Your task to perform on an android device: delete a single message in the gmail app Image 0: 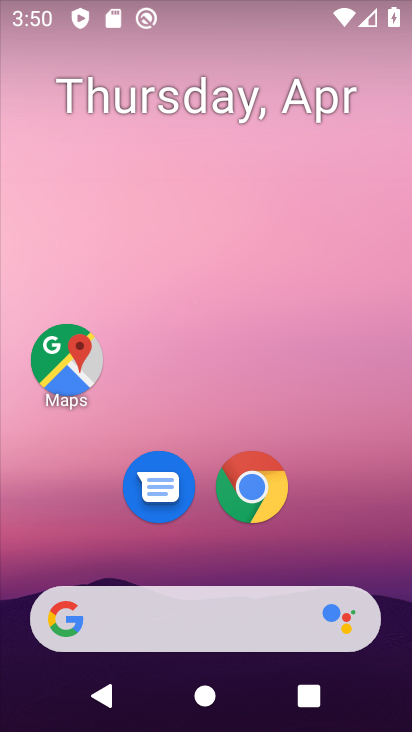
Step 0: drag from (213, 546) to (242, 177)
Your task to perform on an android device: delete a single message in the gmail app Image 1: 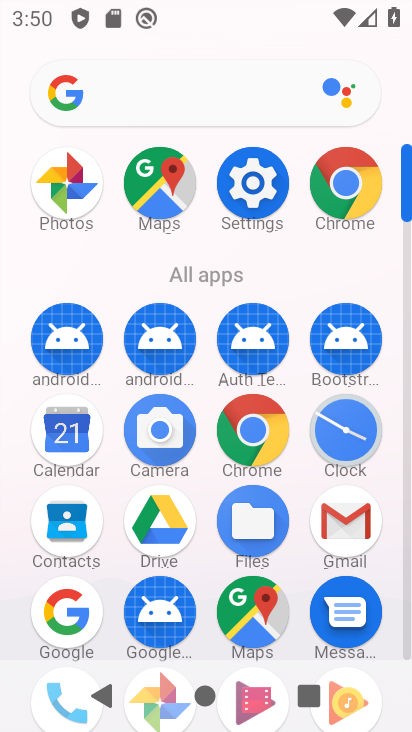
Step 1: click (344, 542)
Your task to perform on an android device: delete a single message in the gmail app Image 2: 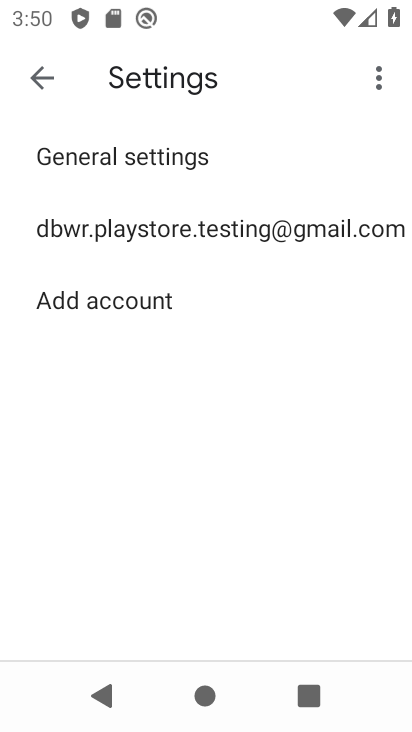
Step 2: drag from (227, 222) to (194, 457)
Your task to perform on an android device: delete a single message in the gmail app Image 3: 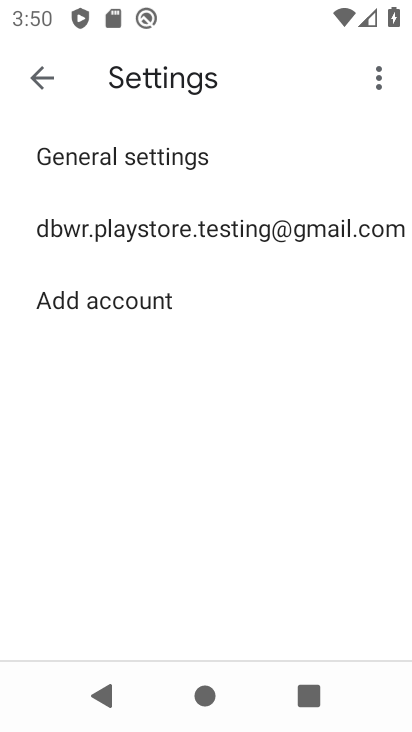
Step 3: click (46, 86)
Your task to perform on an android device: delete a single message in the gmail app Image 4: 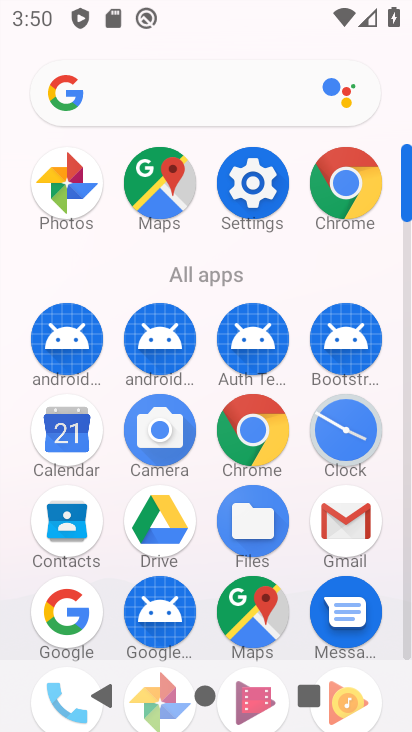
Step 4: click (339, 528)
Your task to perform on an android device: delete a single message in the gmail app Image 5: 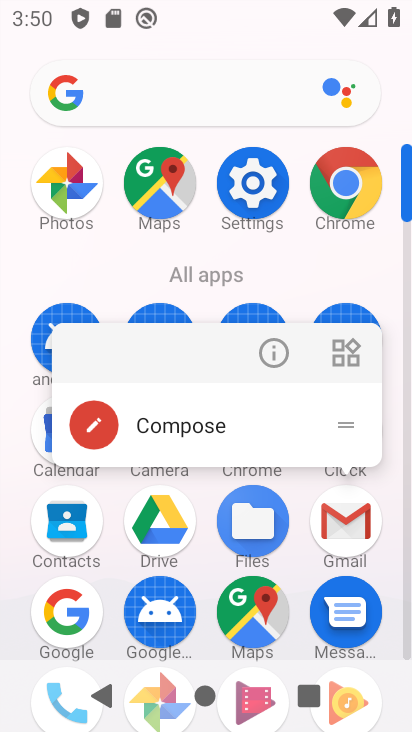
Step 5: click (339, 528)
Your task to perform on an android device: delete a single message in the gmail app Image 6: 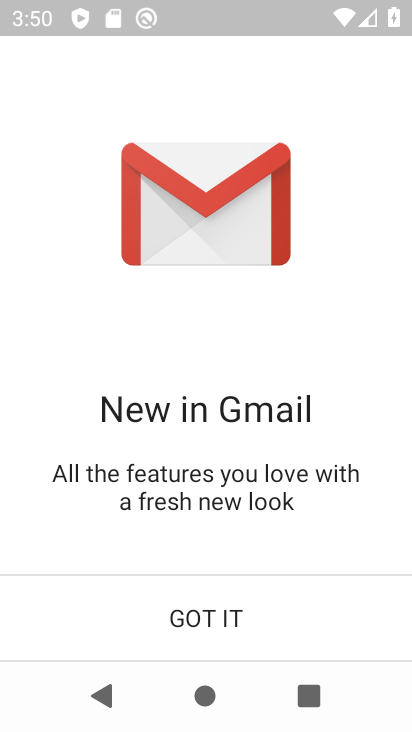
Step 6: click (206, 617)
Your task to perform on an android device: delete a single message in the gmail app Image 7: 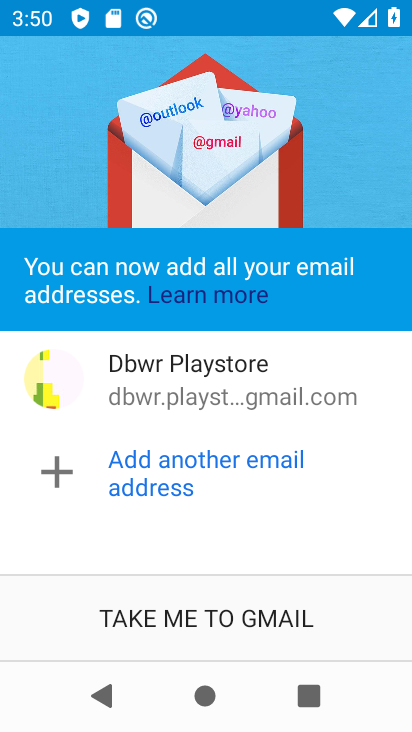
Step 7: click (206, 617)
Your task to perform on an android device: delete a single message in the gmail app Image 8: 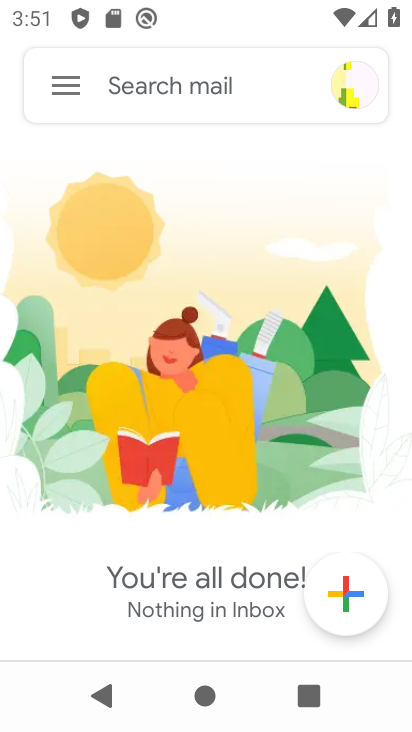
Step 8: click (53, 83)
Your task to perform on an android device: delete a single message in the gmail app Image 9: 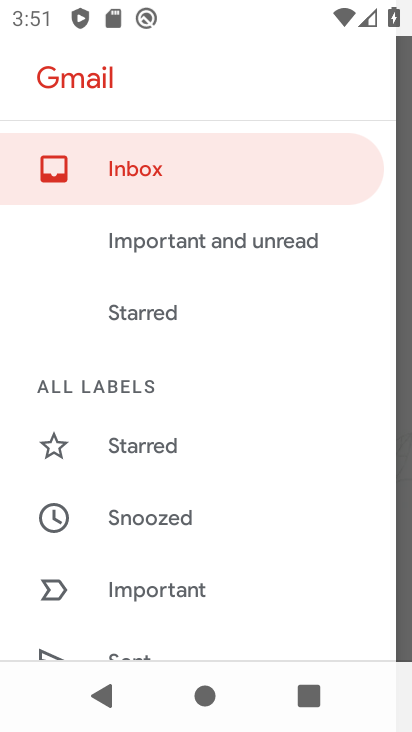
Step 9: drag from (207, 581) to (225, 201)
Your task to perform on an android device: delete a single message in the gmail app Image 10: 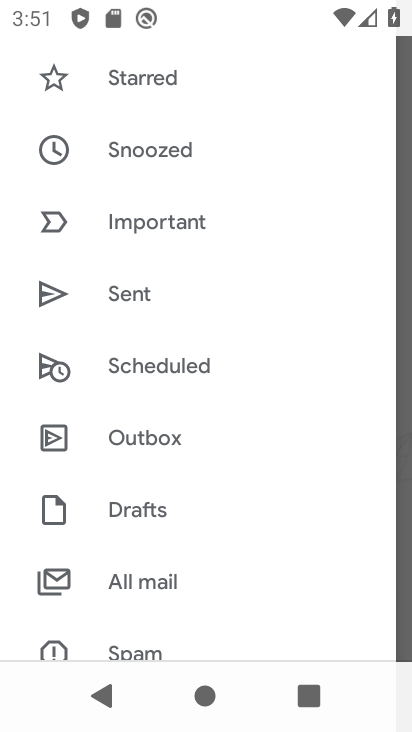
Step 10: click (165, 576)
Your task to perform on an android device: delete a single message in the gmail app Image 11: 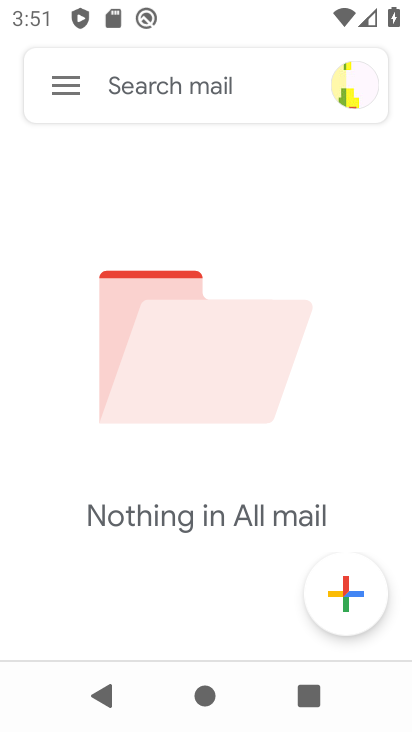
Step 11: task complete